Your task to perform on an android device: install app "Truecaller" Image 0: 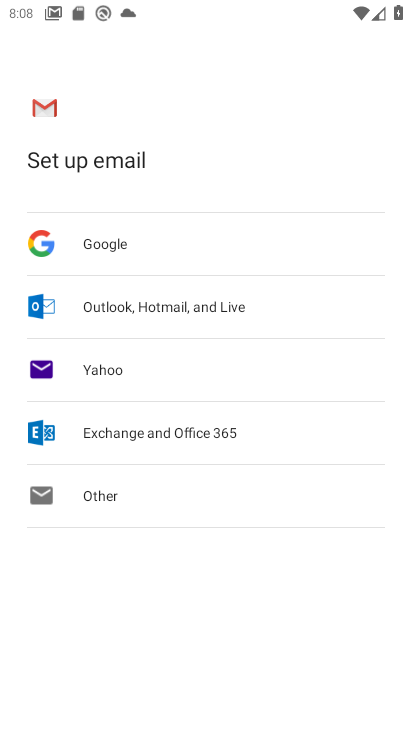
Step 0: press home button
Your task to perform on an android device: install app "Truecaller" Image 1: 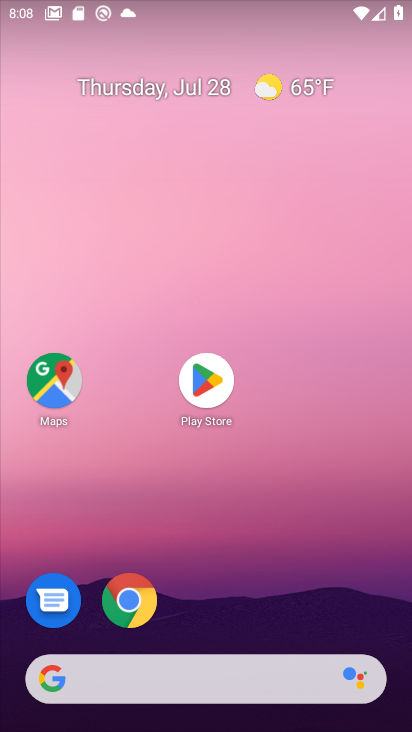
Step 1: drag from (175, 676) to (327, 71)
Your task to perform on an android device: install app "Truecaller" Image 2: 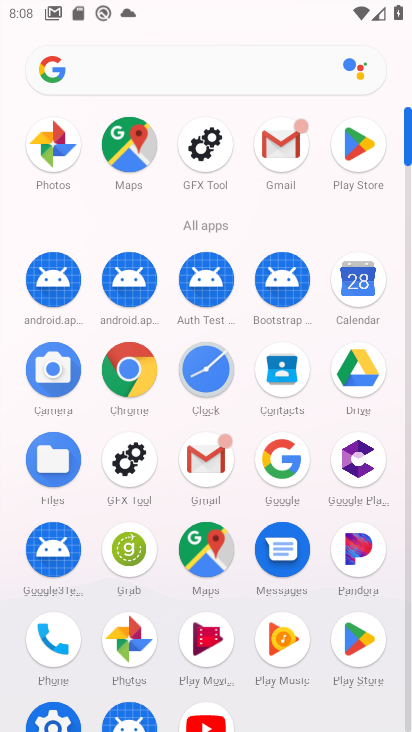
Step 2: click (363, 132)
Your task to perform on an android device: install app "Truecaller" Image 3: 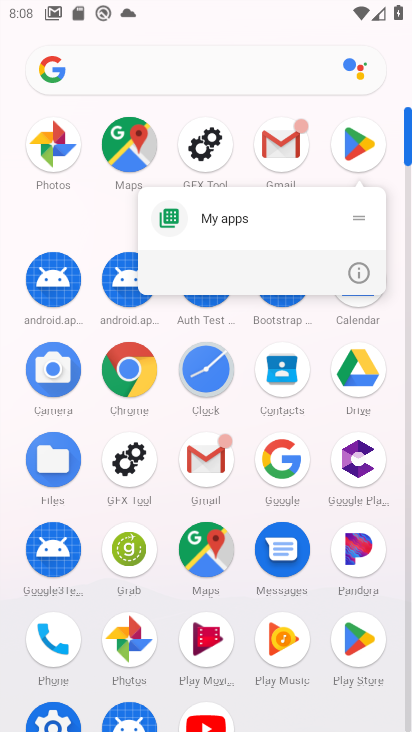
Step 3: click (359, 145)
Your task to perform on an android device: install app "Truecaller" Image 4: 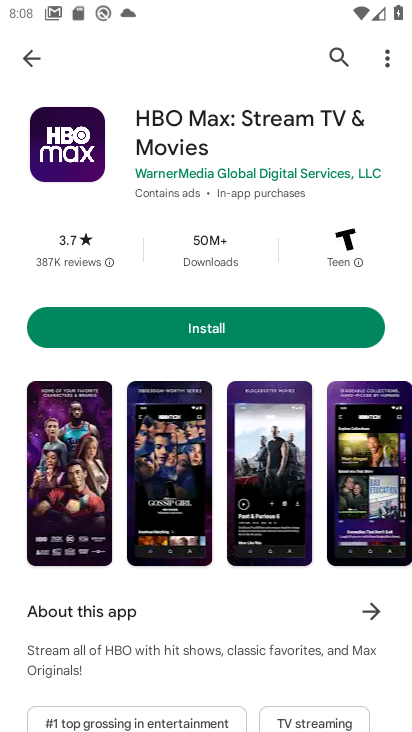
Step 4: click (339, 47)
Your task to perform on an android device: install app "Truecaller" Image 5: 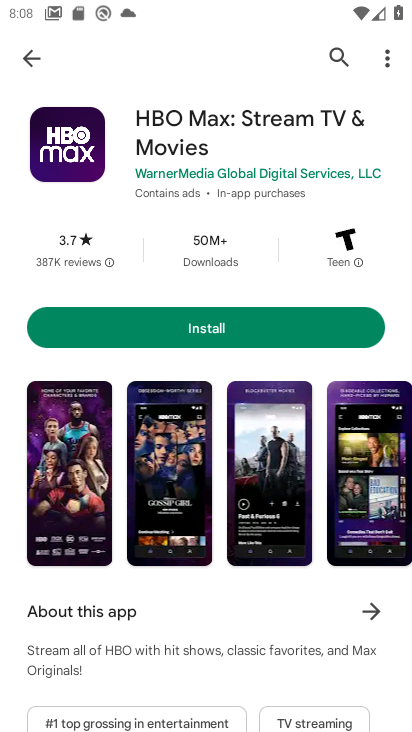
Step 5: click (333, 54)
Your task to perform on an android device: install app "Truecaller" Image 6: 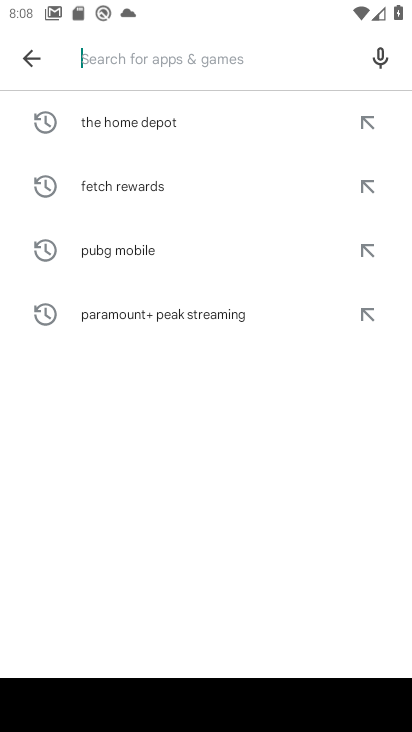
Step 6: click (185, 52)
Your task to perform on an android device: install app "Truecaller" Image 7: 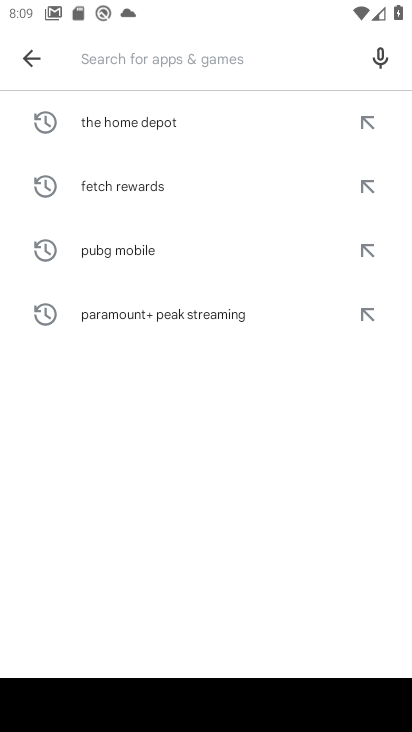
Step 7: type "Truecaller"
Your task to perform on an android device: install app "Truecaller" Image 8: 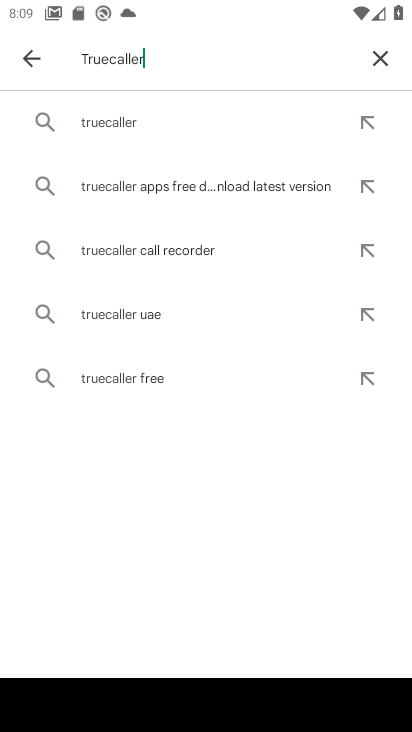
Step 8: click (127, 121)
Your task to perform on an android device: install app "Truecaller" Image 9: 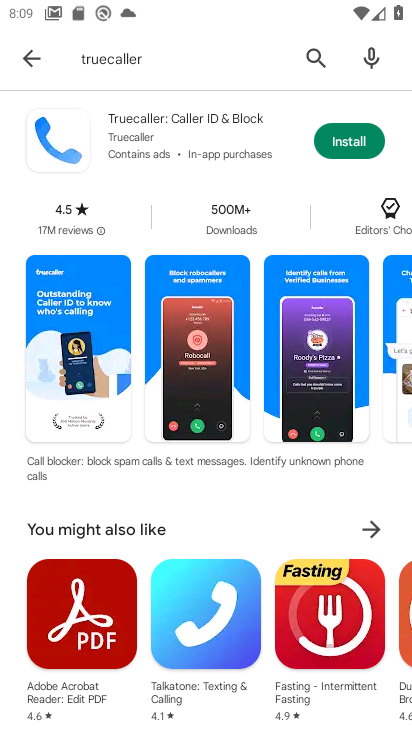
Step 9: click (337, 137)
Your task to perform on an android device: install app "Truecaller" Image 10: 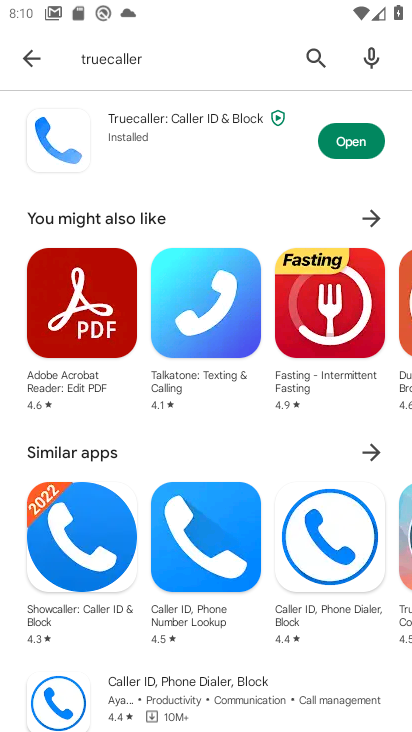
Step 10: task complete